Your task to perform on an android device: change notifications settings Image 0: 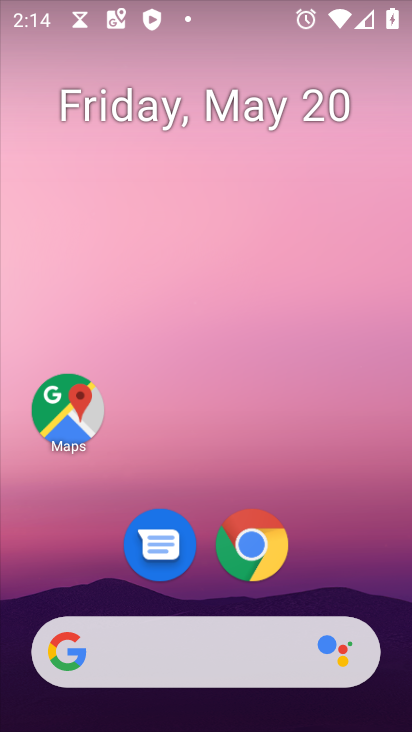
Step 0: drag from (325, 586) to (289, 349)
Your task to perform on an android device: change notifications settings Image 1: 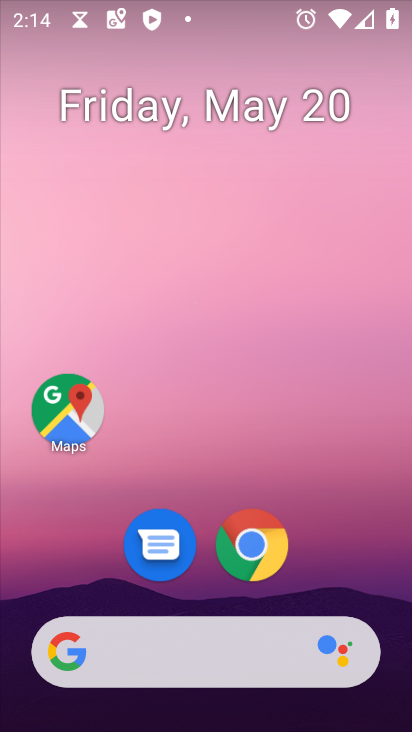
Step 1: drag from (368, 548) to (245, 155)
Your task to perform on an android device: change notifications settings Image 2: 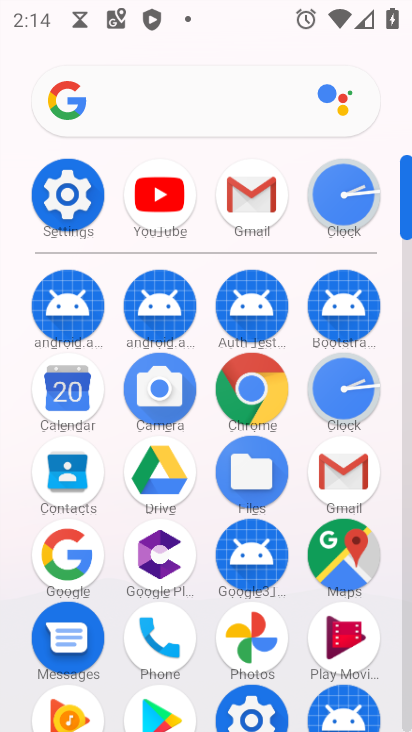
Step 2: click (80, 186)
Your task to perform on an android device: change notifications settings Image 3: 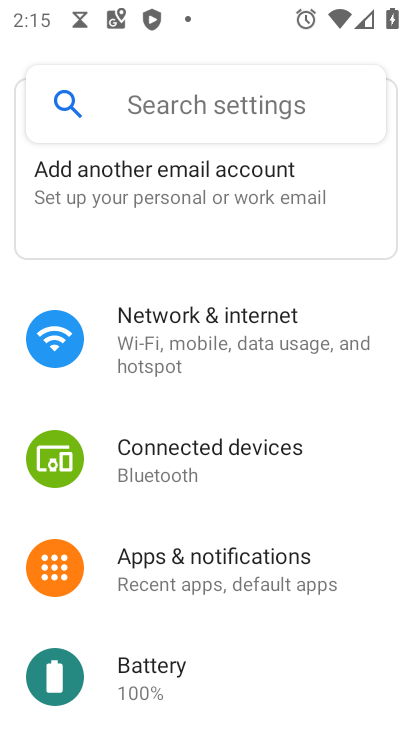
Step 3: click (253, 584)
Your task to perform on an android device: change notifications settings Image 4: 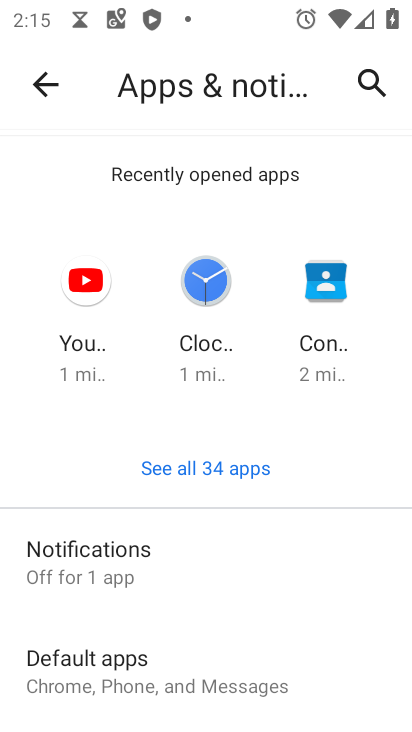
Step 4: click (149, 575)
Your task to perform on an android device: change notifications settings Image 5: 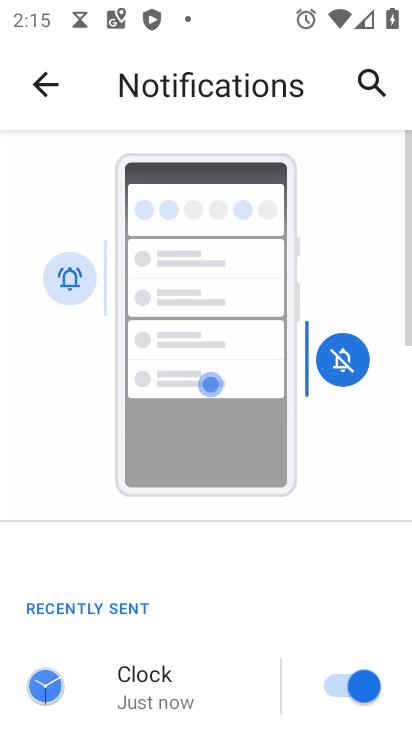
Step 5: drag from (231, 627) to (209, 292)
Your task to perform on an android device: change notifications settings Image 6: 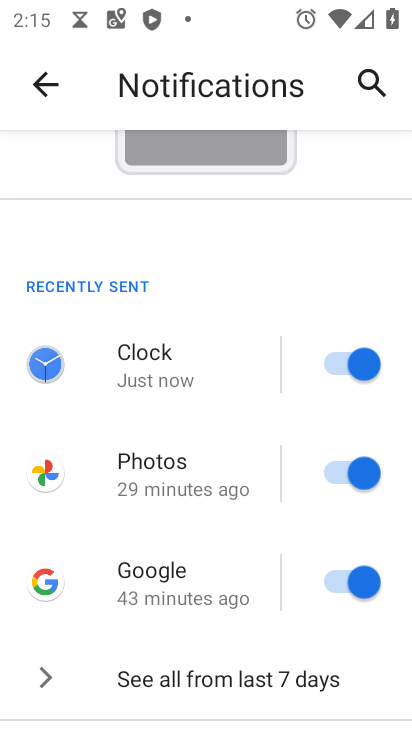
Step 6: click (339, 582)
Your task to perform on an android device: change notifications settings Image 7: 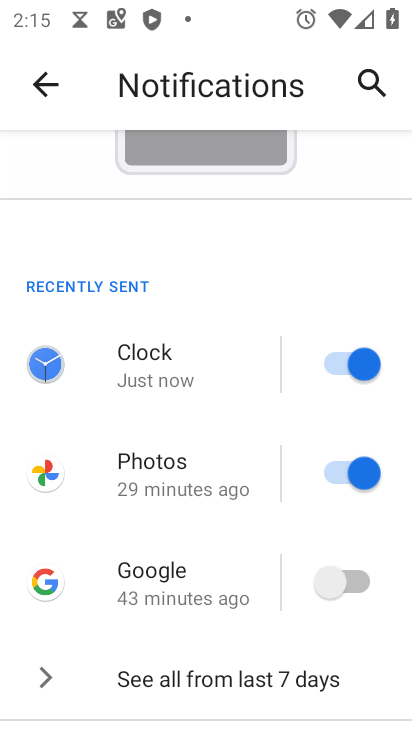
Step 7: task complete